Your task to perform on an android device: Open Google Chrome and open the bookmarks view Image 0: 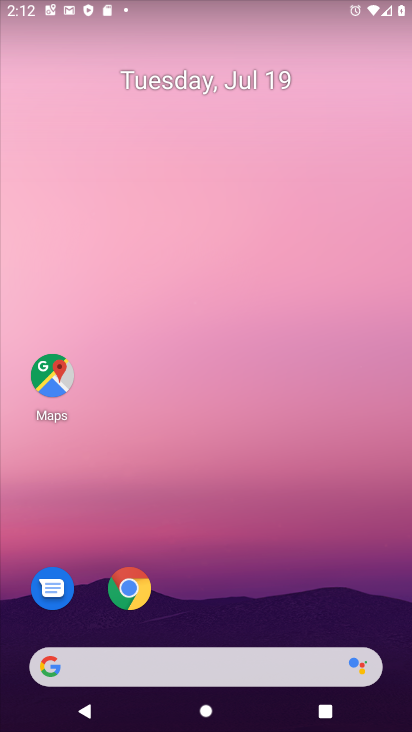
Step 0: drag from (335, 619) to (149, 158)
Your task to perform on an android device: Open Google Chrome and open the bookmarks view Image 1: 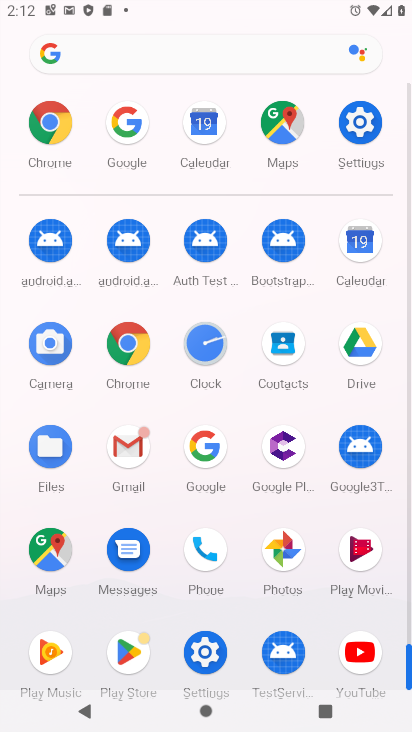
Step 1: click (143, 351)
Your task to perform on an android device: Open Google Chrome and open the bookmarks view Image 2: 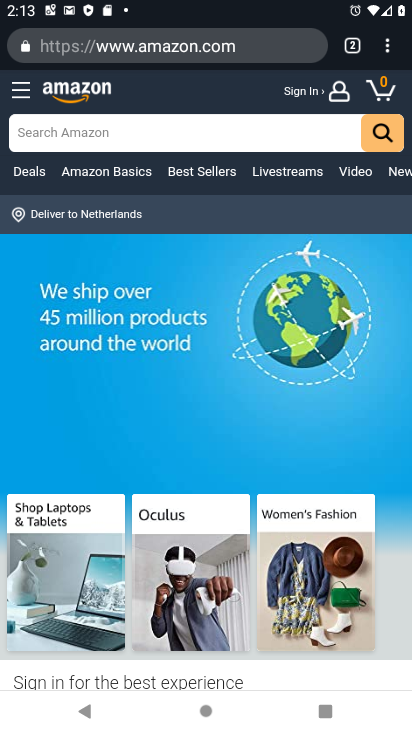
Step 2: press back button
Your task to perform on an android device: Open Google Chrome and open the bookmarks view Image 3: 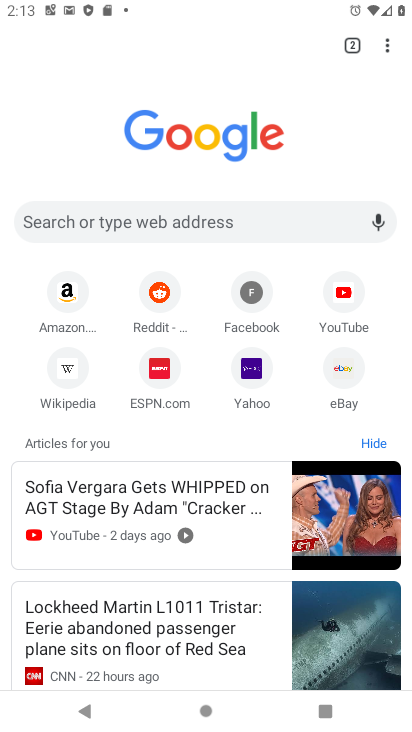
Step 3: click (382, 41)
Your task to perform on an android device: Open Google Chrome and open the bookmarks view Image 4: 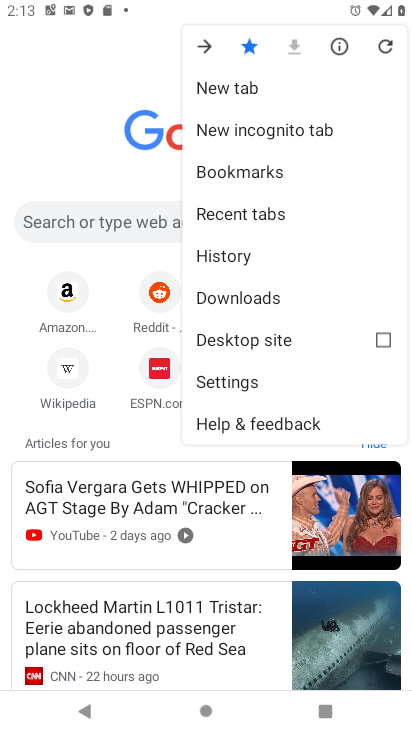
Step 4: click (284, 178)
Your task to perform on an android device: Open Google Chrome and open the bookmarks view Image 5: 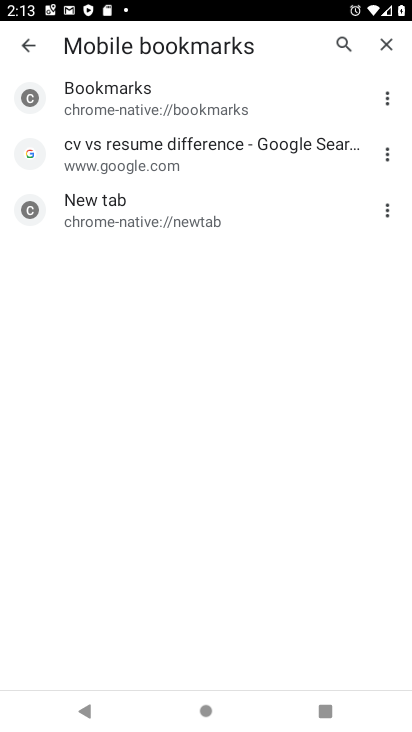
Step 5: task complete